Your task to perform on an android device: turn off location Image 0: 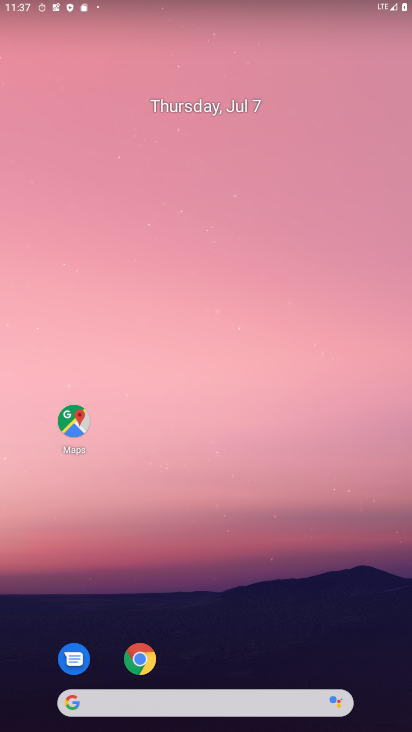
Step 0: drag from (221, 671) to (199, 251)
Your task to perform on an android device: turn off location Image 1: 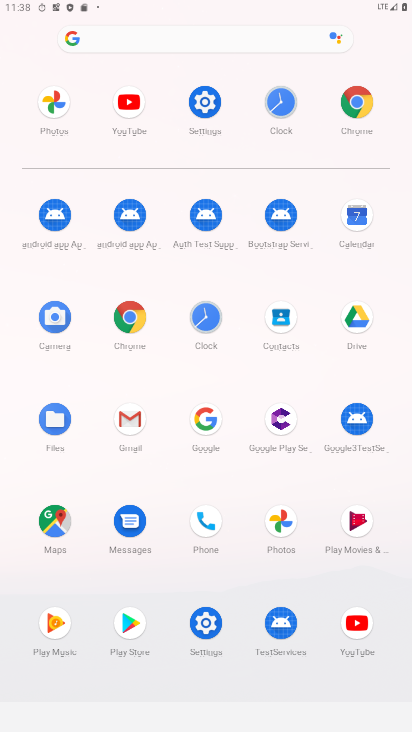
Step 1: click (203, 97)
Your task to perform on an android device: turn off location Image 2: 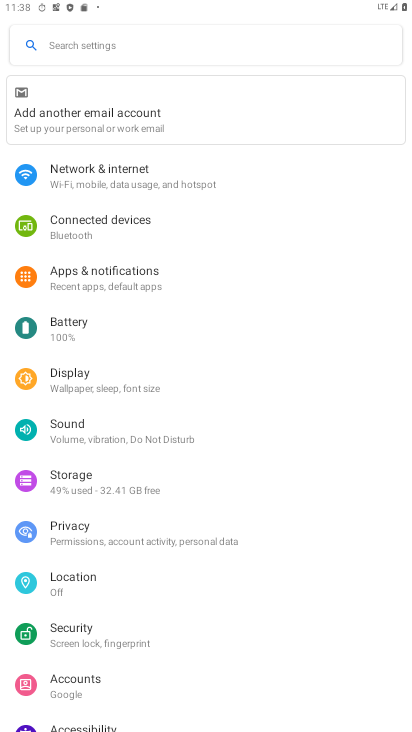
Step 2: click (95, 584)
Your task to perform on an android device: turn off location Image 3: 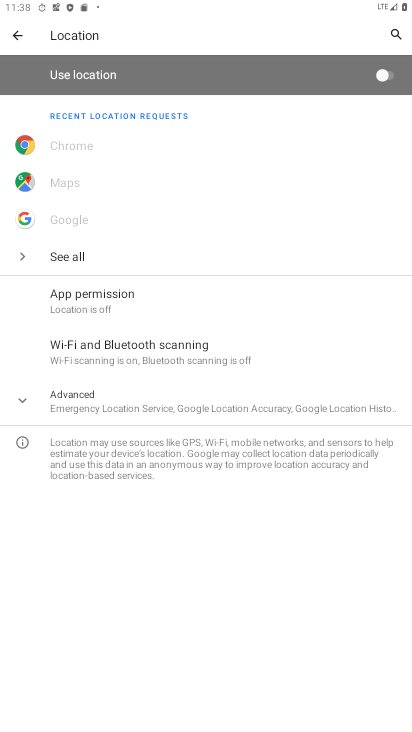
Step 3: task complete